Your task to perform on an android device: toggle javascript in the chrome app Image 0: 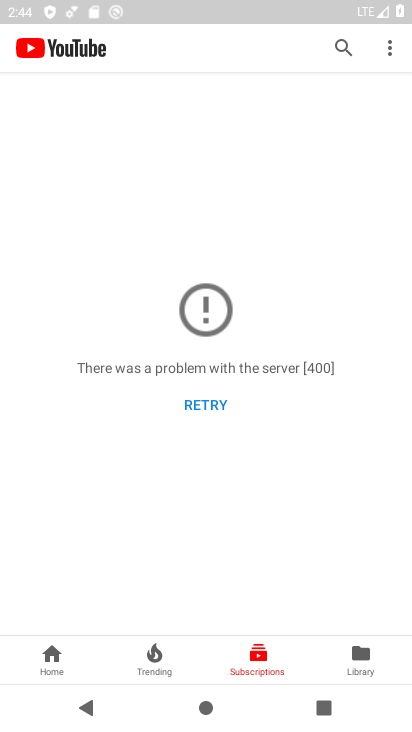
Step 0: press home button
Your task to perform on an android device: toggle javascript in the chrome app Image 1: 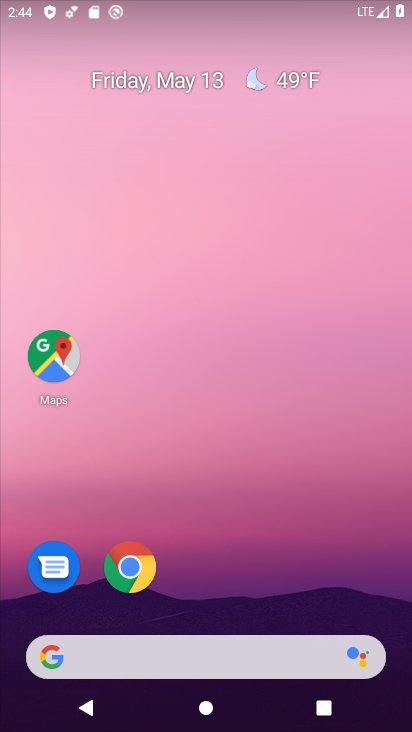
Step 1: click (154, 562)
Your task to perform on an android device: toggle javascript in the chrome app Image 2: 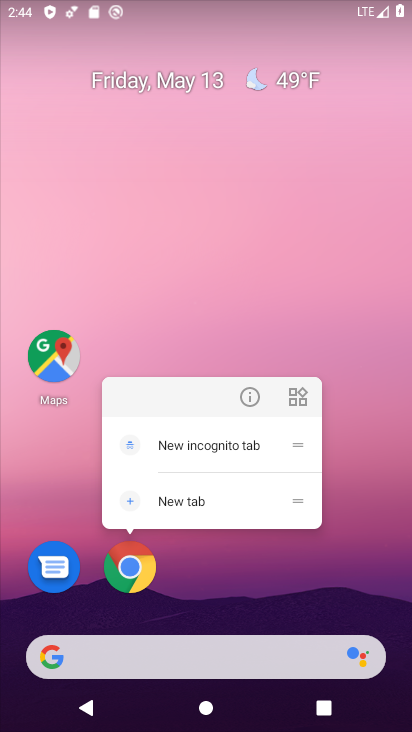
Step 2: click (131, 564)
Your task to perform on an android device: toggle javascript in the chrome app Image 3: 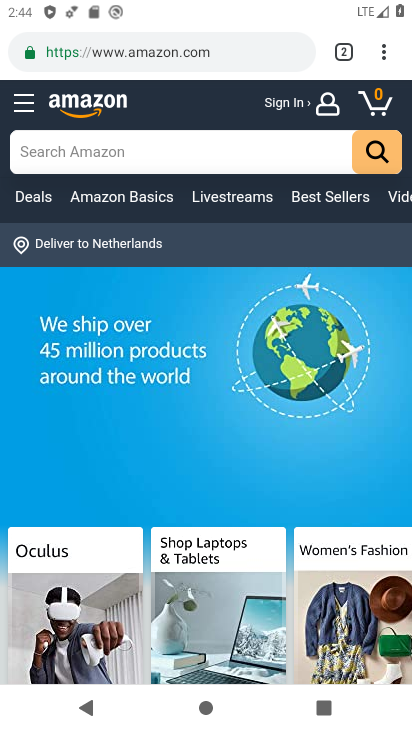
Step 3: click (393, 50)
Your task to perform on an android device: toggle javascript in the chrome app Image 4: 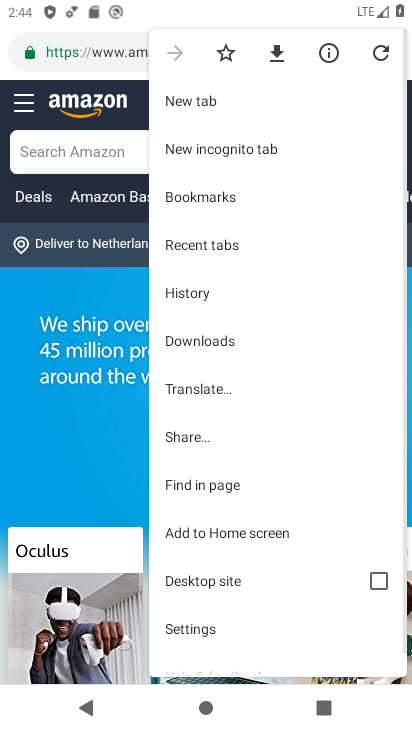
Step 4: click (220, 631)
Your task to perform on an android device: toggle javascript in the chrome app Image 5: 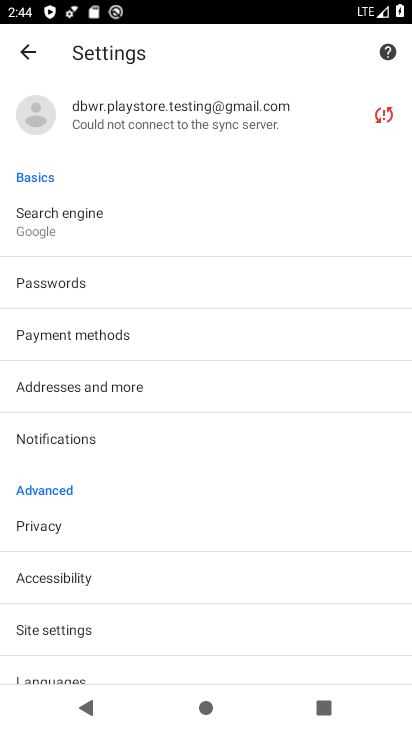
Step 5: click (60, 609)
Your task to perform on an android device: toggle javascript in the chrome app Image 6: 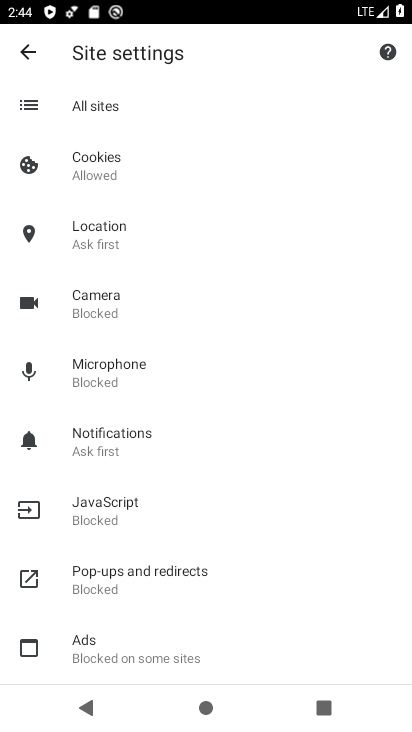
Step 6: click (96, 520)
Your task to perform on an android device: toggle javascript in the chrome app Image 7: 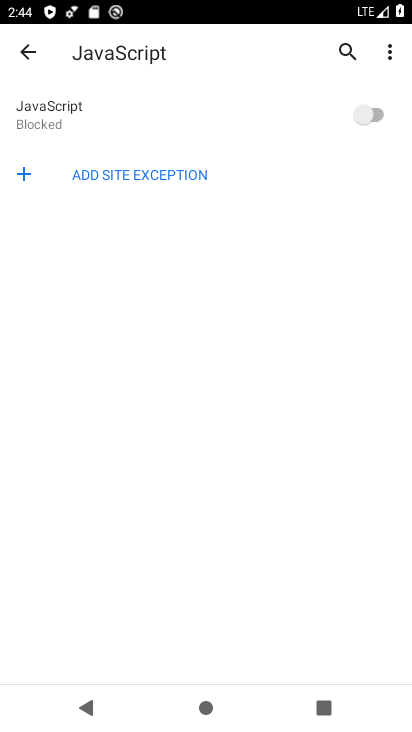
Step 7: click (367, 100)
Your task to perform on an android device: toggle javascript in the chrome app Image 8: 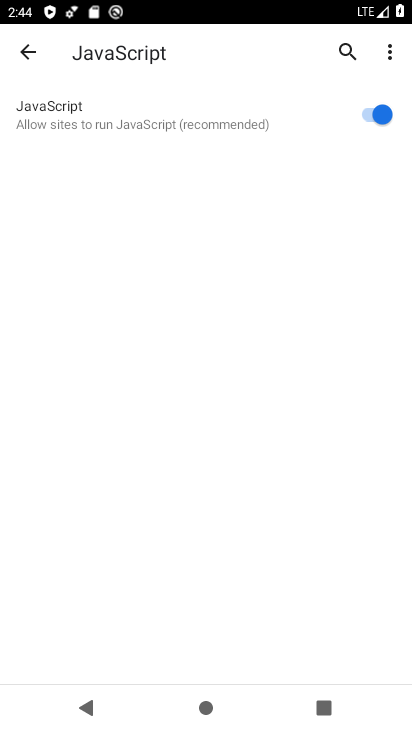
Step 8: task complete